Your task to perform on an android device: Open Maps and search for coffee Image 0: 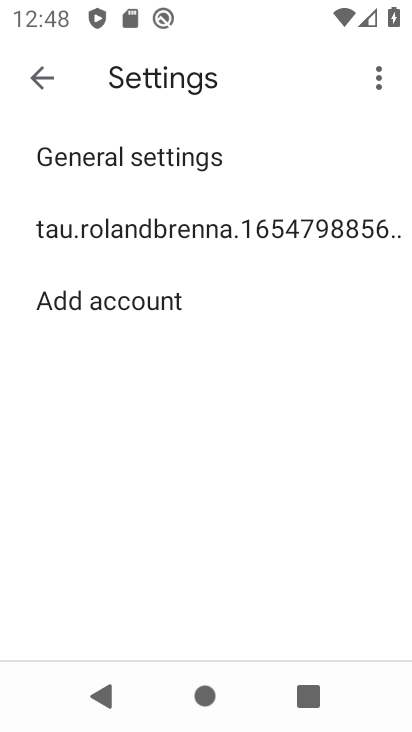
Step 0: press back button
Your task to perform on an android device: Open Maps and search for coffee Image 1: 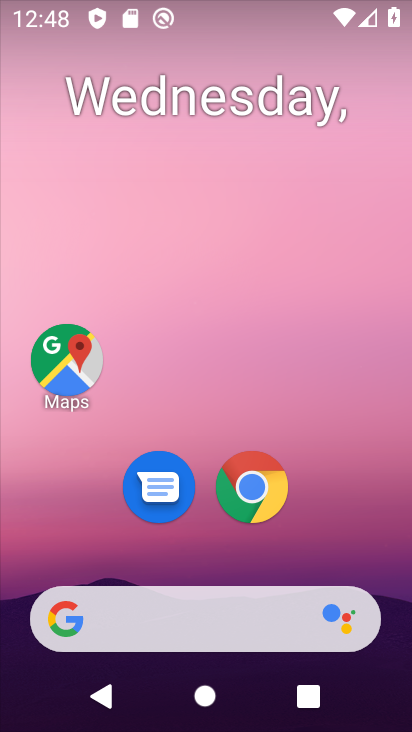
Step 1: click (66, 361)
Your task to perform on an android device: Open Maps and search for coffee Image 2: 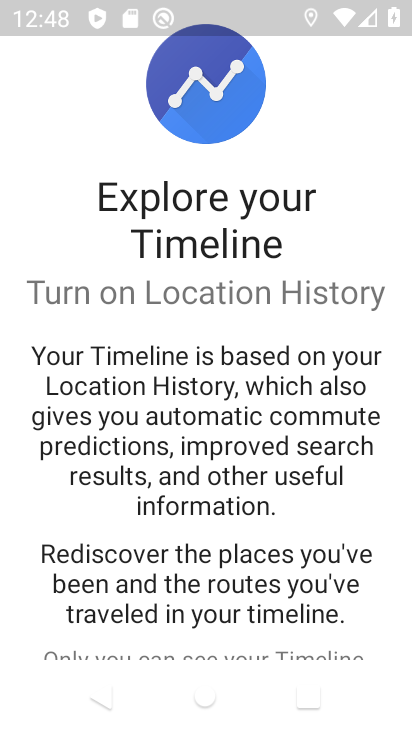
Step 2: press back button
Your task to perform on an android device: Open Maps and search for coffee Image 3: 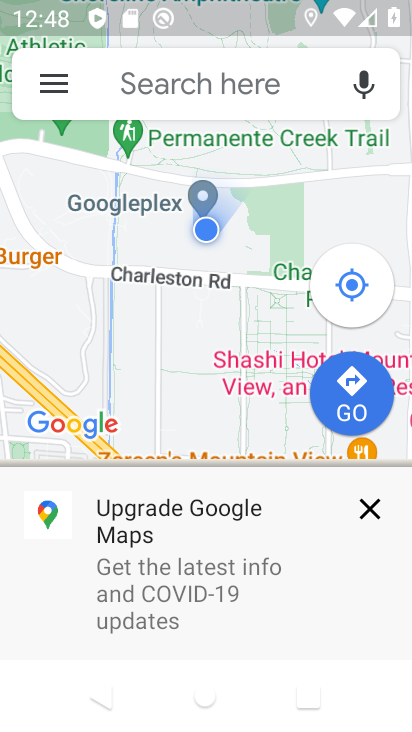
Step 3: press back button
Your task to perform on an android device: Open Maps and search for coffee Image 4: 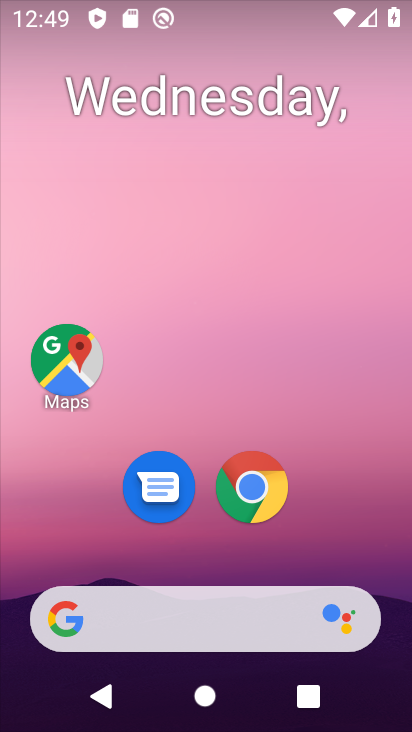
Step 4: click (70, 364)
Your task to perform on an android device: Open Maps and search for coffee Image 5: 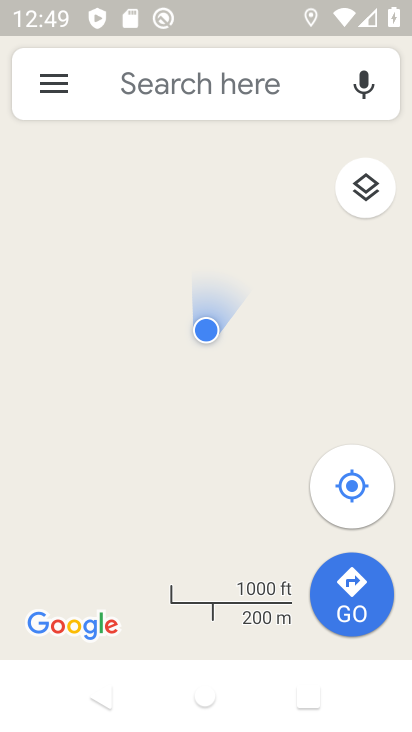
Step 5: click (209, 88)
Your task to perform on an android device: Open Maps and search for coffee Image 6: 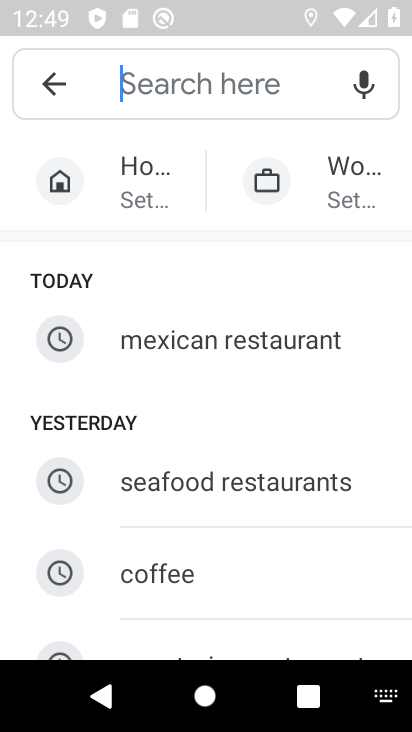
Step 6: click (182, 582)
Your task to perform on an android device: Open Maps and search for coffee Image 7: 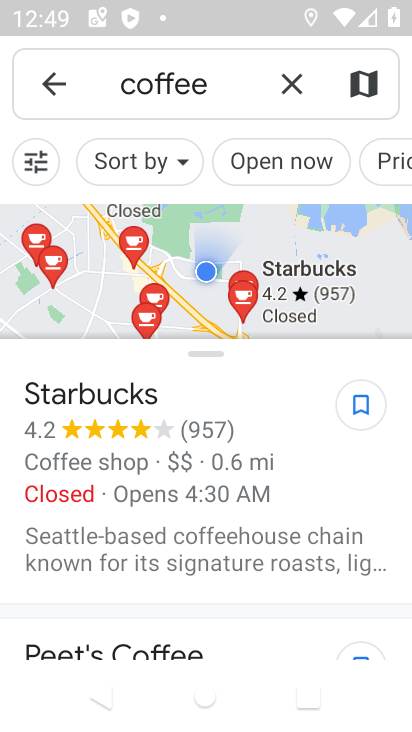
Step 7: task complete